Your task to perform on an android device: Go to network settings Image 0: 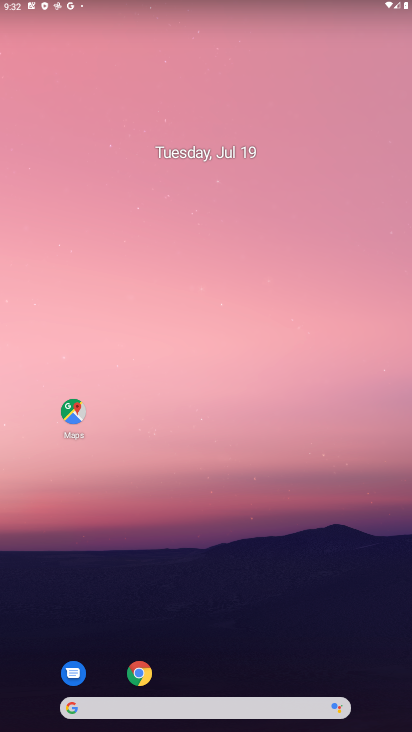
Step 0: drag from (277, 646) to (266, 118)
Your task to perform on an android device: Go to network settings Image 1: 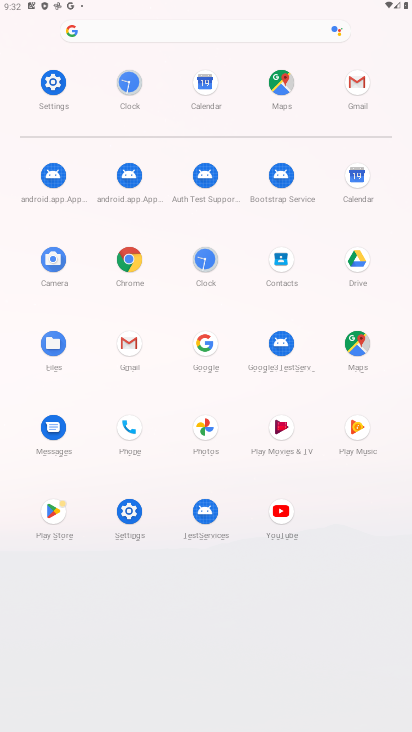
Step 1: click (134, 505)
Your task to perform on an android device: Go to network settings Image 2: 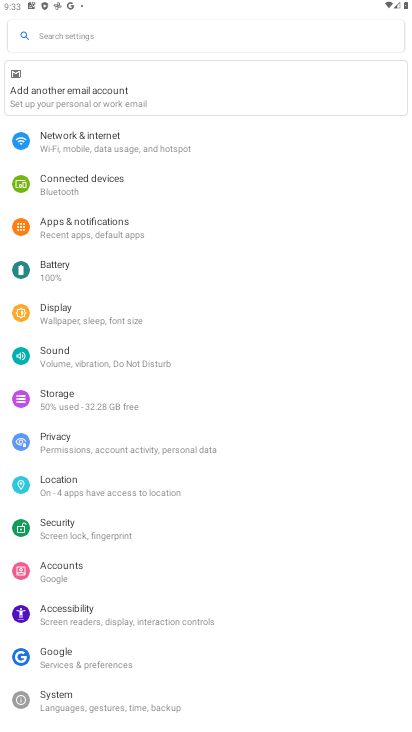
Step 2: click (128, 158)
Your task to perform on an android device: Go to network settings Image 3: 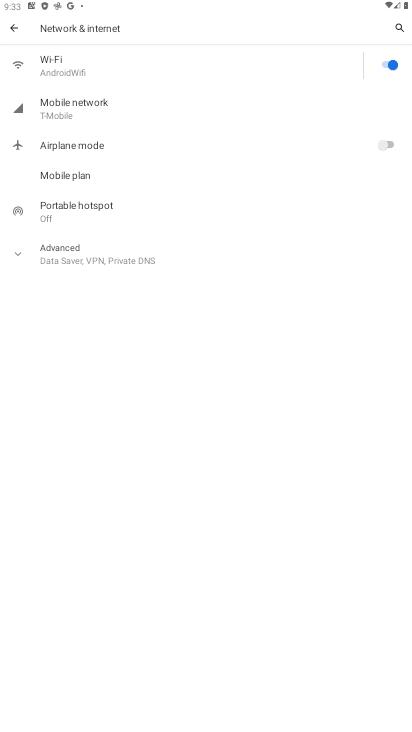
Step 3: task complete